Your task to perform on an android device: turn off location history Image 0: 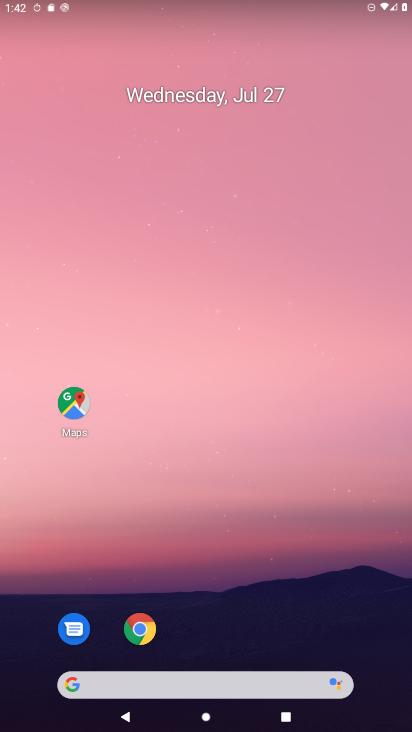
Step 0: press home button
Your task to perform on an android device: turn off location history Image 1: 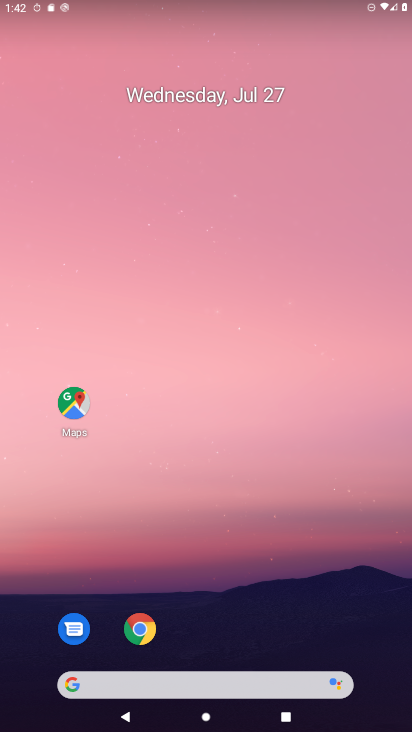
Step 1: drag from (242, 637) to (310, 159)
Your task to perform on an android device: turn off location history Image 2: 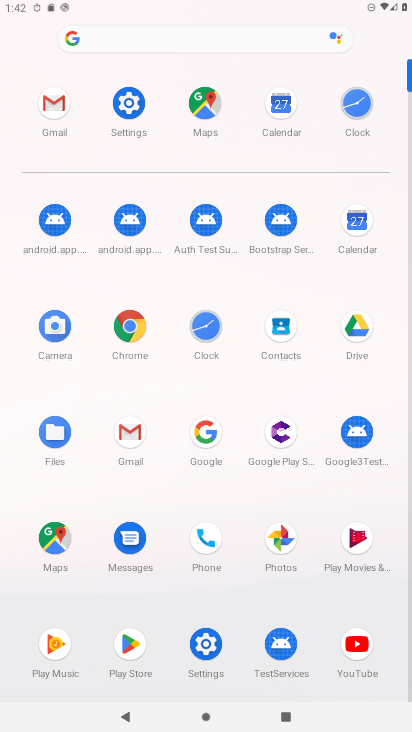
Step 2: click (120, 113)
Your task to perform on an android device: turn off location history Image 3: 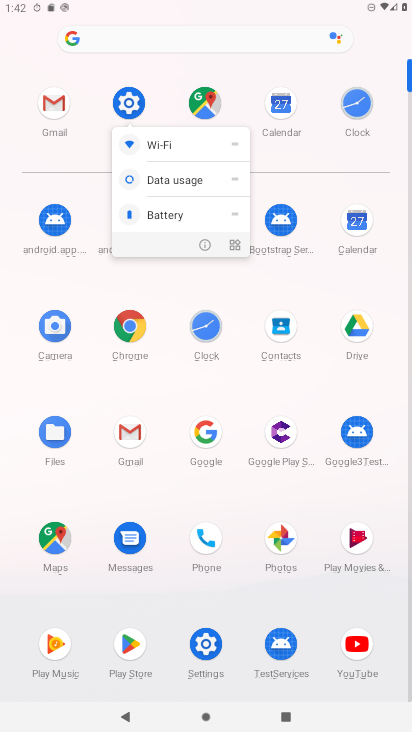
Step 3: click (121, 115)
Your task to perform on an android device: turn off location history Image 4: 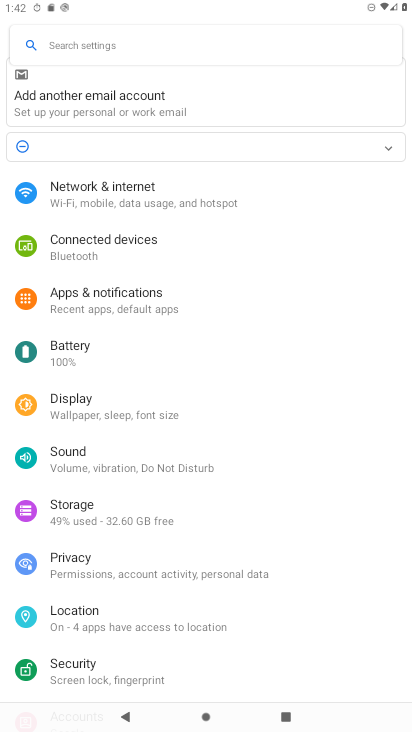
Step 4: click (75, 612)
Your task to perform on an android device: turn off location history Image 5: 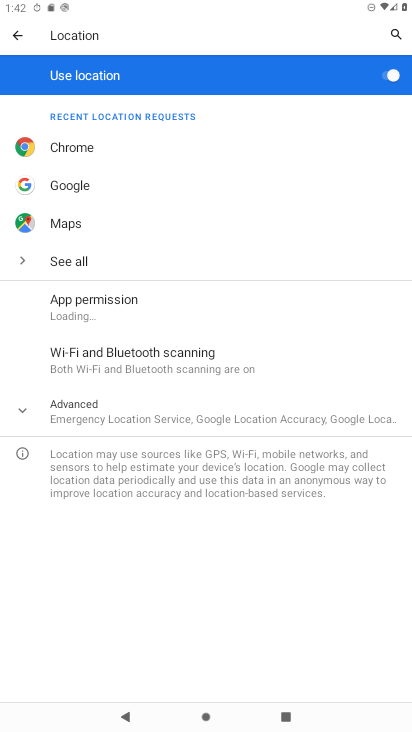
Step 5: click (75, 417)
Your task to perform on an android device: turn off location history Image 6: 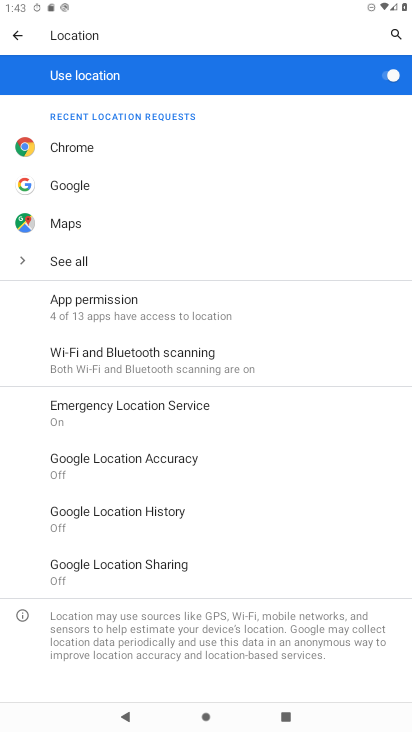
Step 6: click (129, 517)
Your task to perform on an android device: turn off location history Image 7: 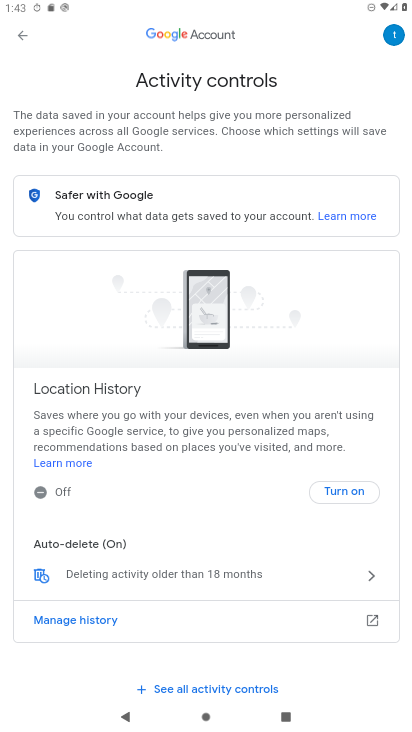
Step 7: task complete